Your task to perform on an android device: open the mobile data screen to see how much data has been used Image 0: 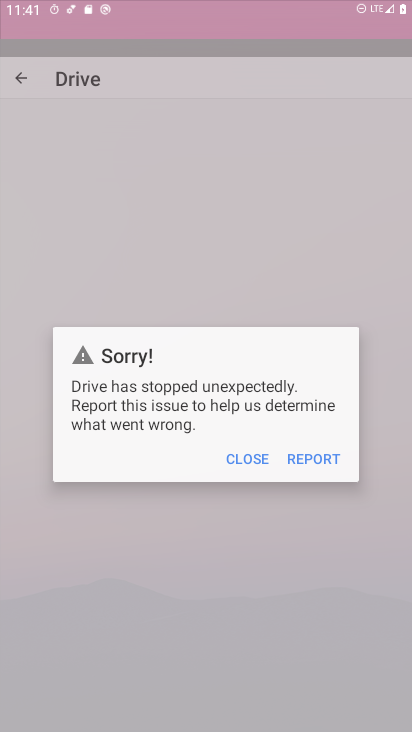
Step 0: press home button
Your task to perform on an android device: open the mobile data screen to see how much data has been used Image 1: 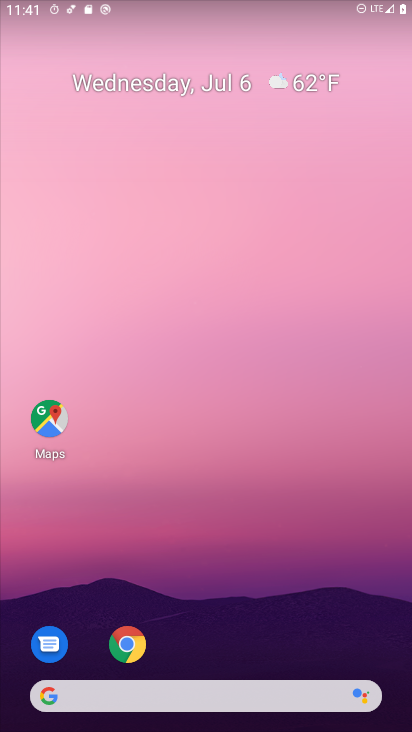
Step 1: press home button
Your task to perform on an android device: open the mobile data screen to see how much data has been used Image 2: 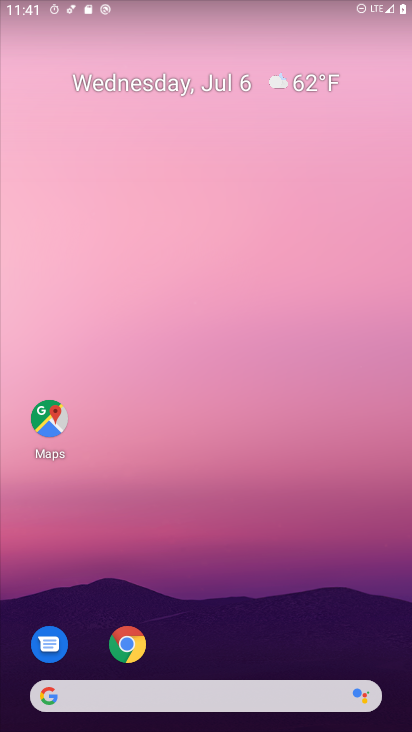
Step 2: drag from (245, 632) to (241, 12)
Your task to perform on an android device: open the mobile data screen to see how much data has been used Image 3: 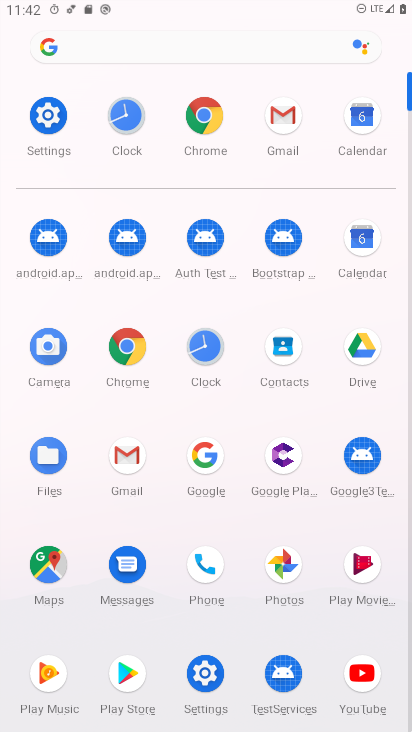
Step 3: click (59, 117)
Your task to perform on an android device: open the mobile data screen to see how much data has been used Image 4: 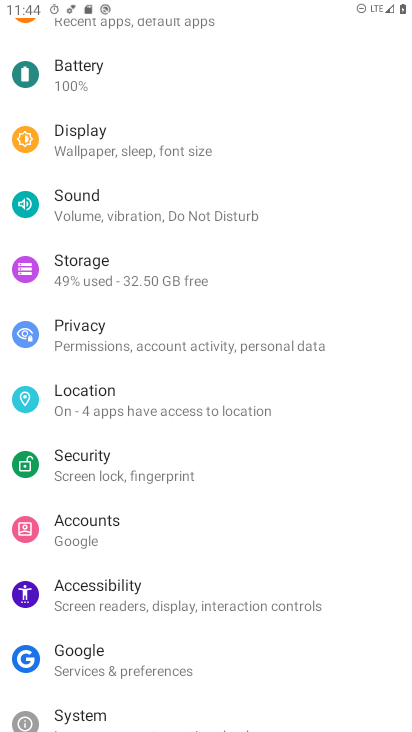
Step 4: drag from (202, 92) to (257, 729)
Your task to perform on an android device: open the mobile data screen to see how much data has been used Image 5: 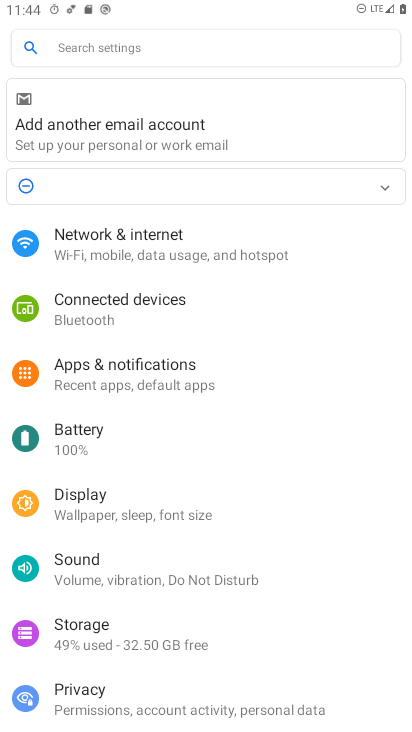
Step 5: click (134, 248)
Your task to perform on an android device: open the mobile data screen to see how much data has been used Image 6: 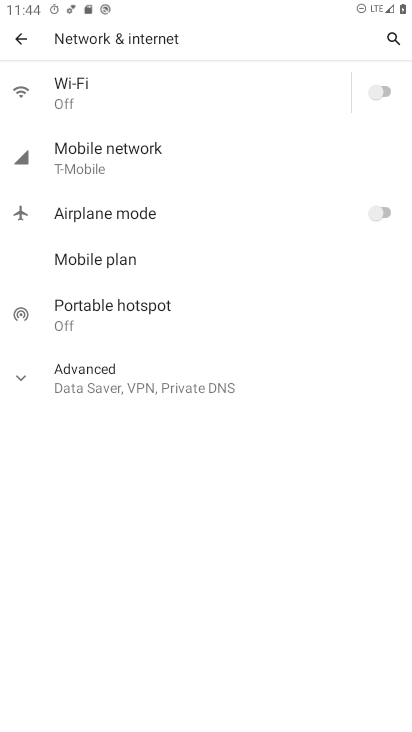
Step 6: click (97, 146)
Your task to perform on an android device: open the mobile data screen to see how much data has been used Image 7: 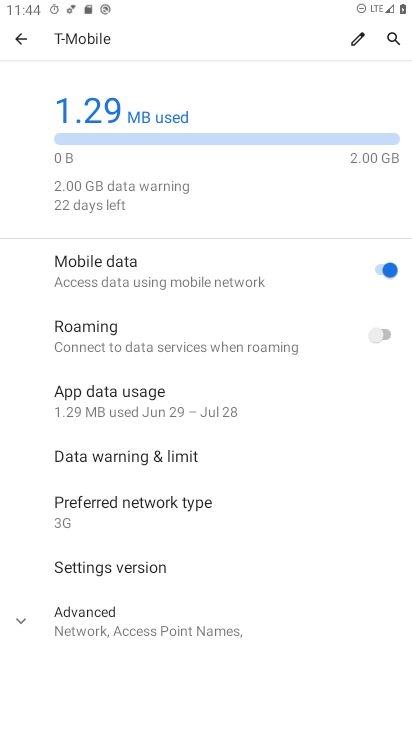
Step 7: click (130, 397)
Your task to perform on an android device: open the mobile data screen to see how much data has been used Image 8: 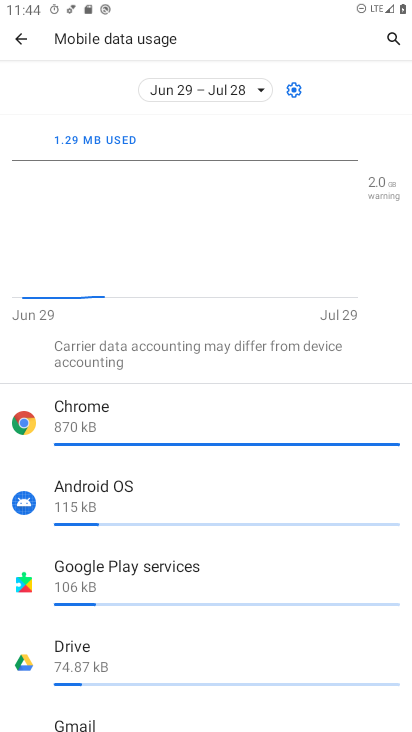
Step 8: task complete